Your task to perform on an android device: delete the emails in spam in the gmail app Image 0: 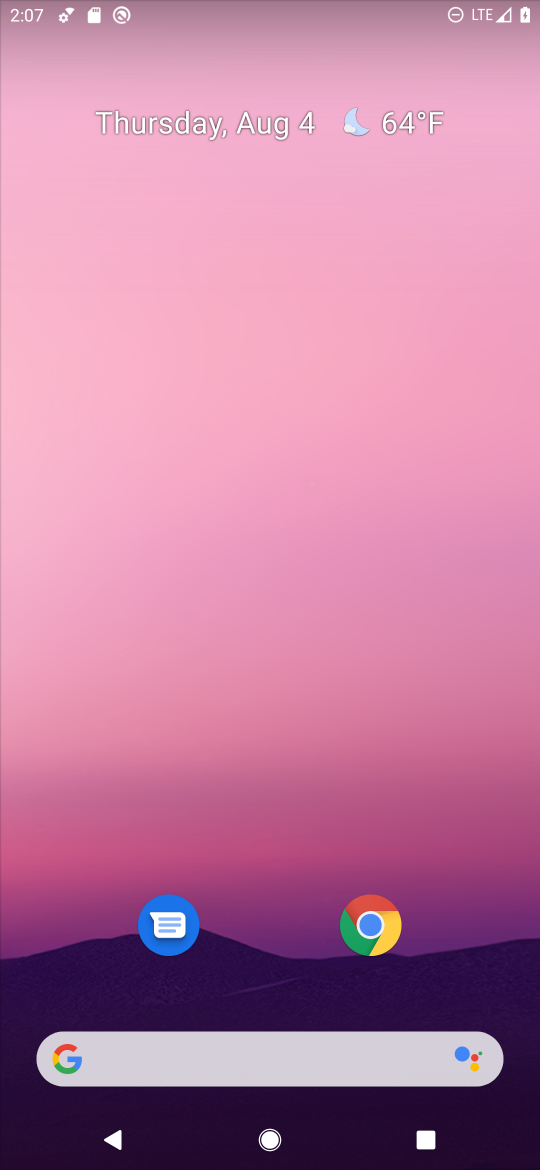
Step 0: drag from (231, 957) to (254, 162)
Your task to perform on an android device: delete the emails in spam in the gmail app Image 1: 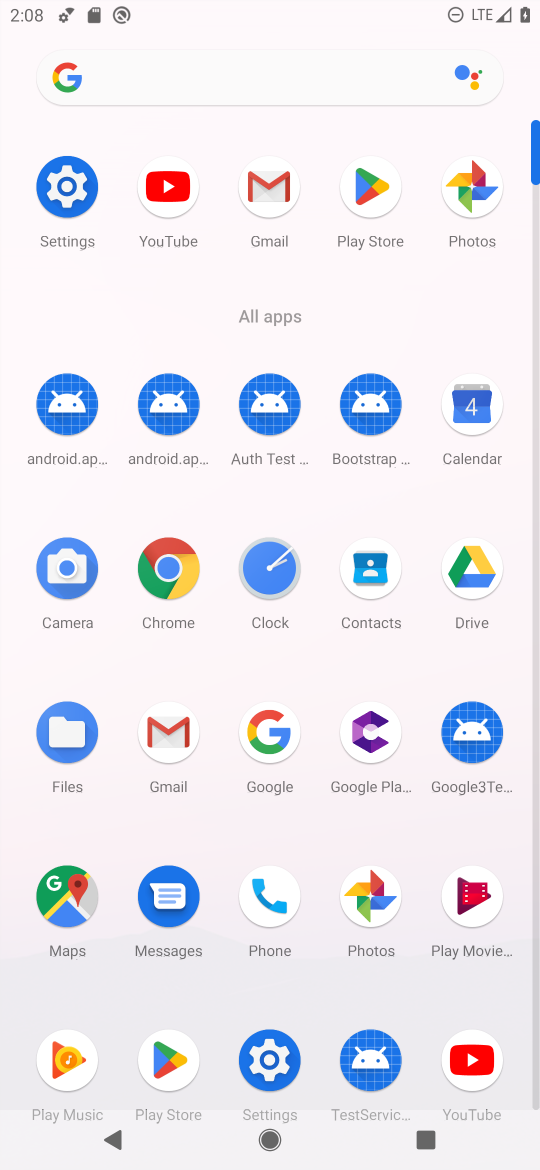
Step 1: click (166, 733)
Your task to perform on an android device: delete the emails in spam in the gmail app Image 2: 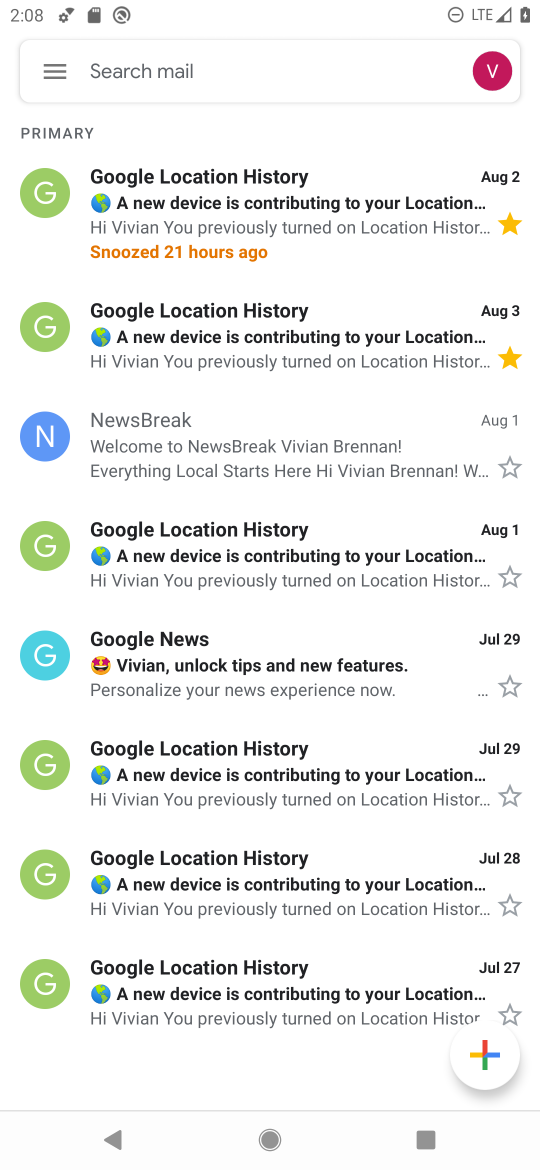
Step 2: click (59, 81)
Your task to perform on an android device: delete the emails in spam in the gmail app Image 3: 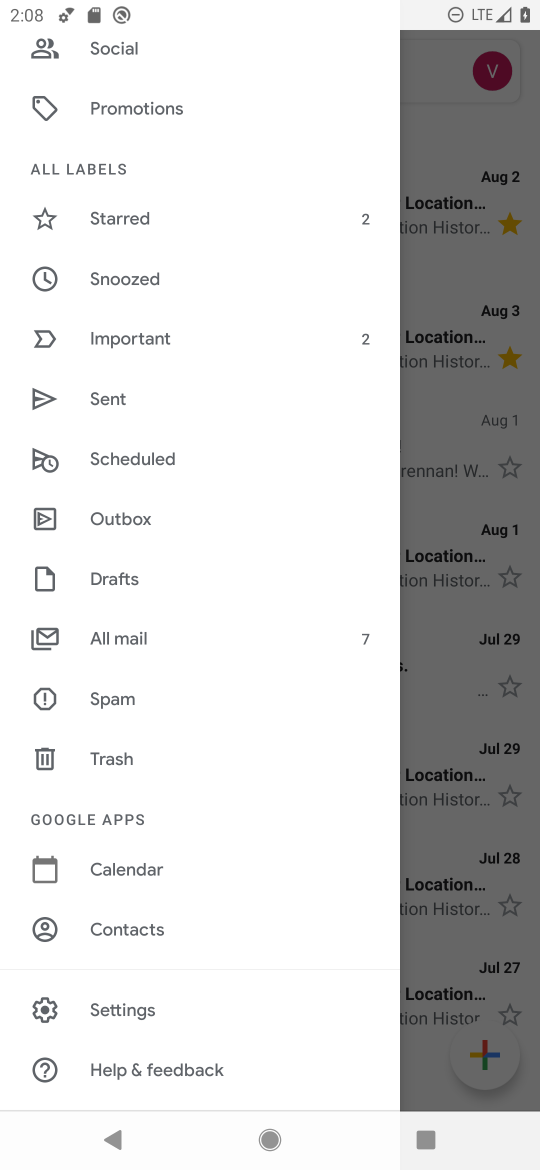
Step 3: click (121, 714)
Your task to perform on an android device: delete the emails in spam in the gmail app Image 4: 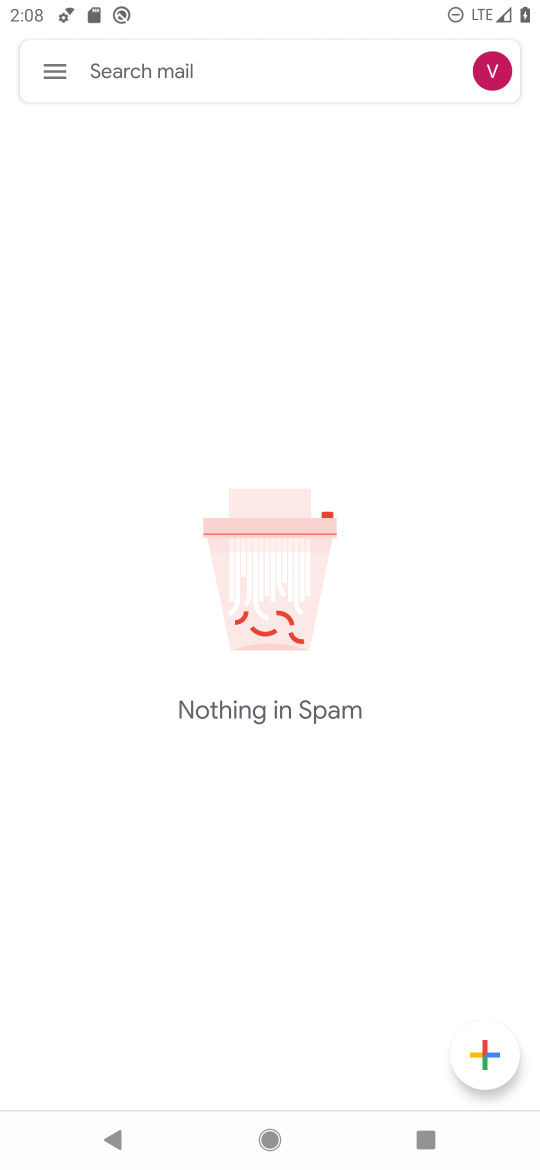
Step 4: click (114, 1145)
Your task to perform on an android device: delete the emails in spam in the gmail app Image 5: 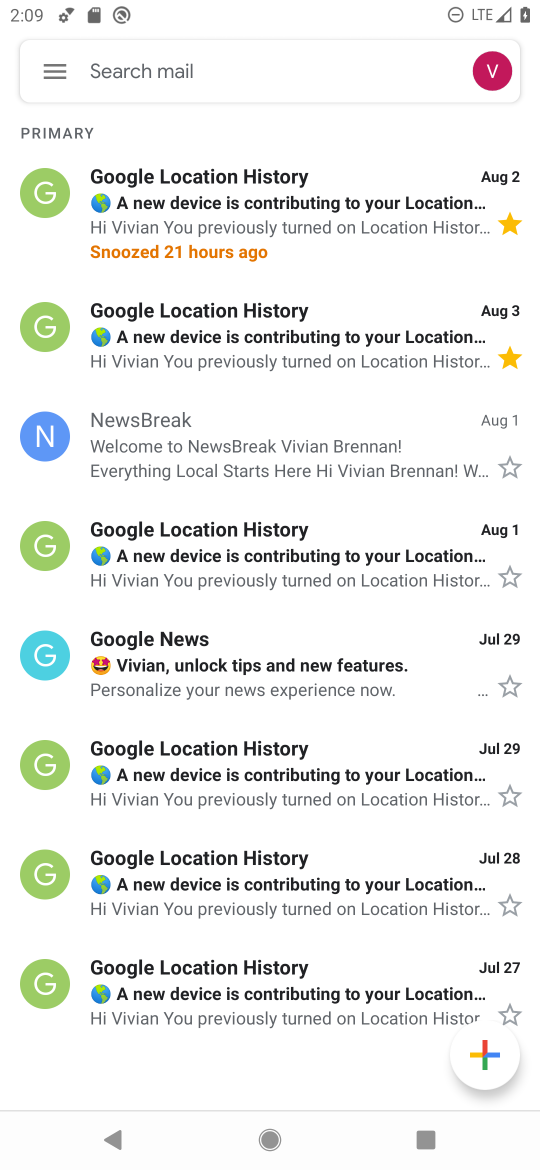
Step 5: click (40, 75)
Your task to perform on an android device: delete the emails in spam in the gmail app Image 6: 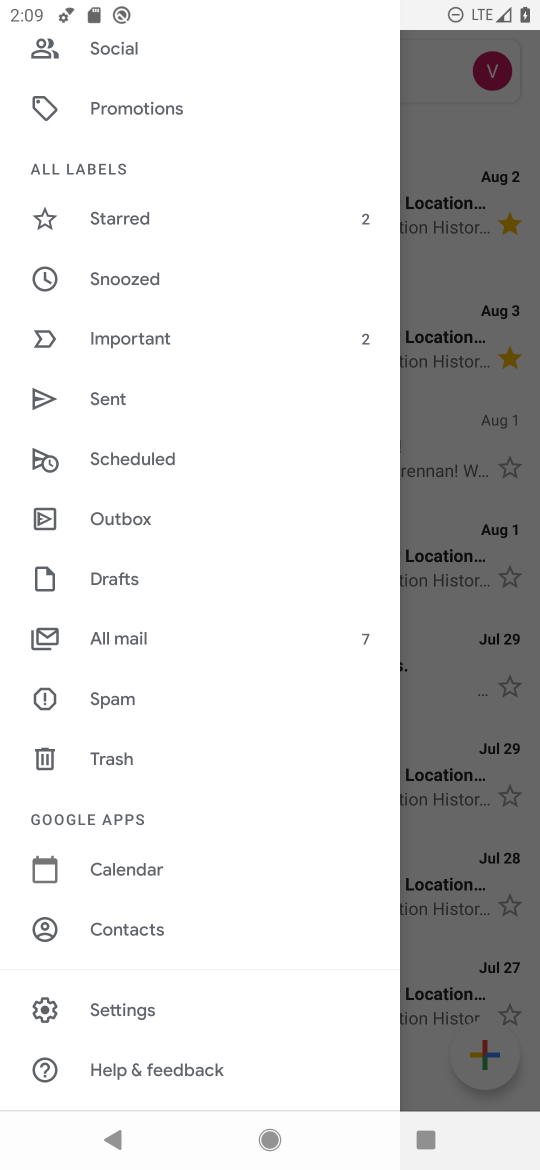
Step 6: click (111, 696)
Your task to perform on an android device: delete the emails in spam in the gmail app Image 7: 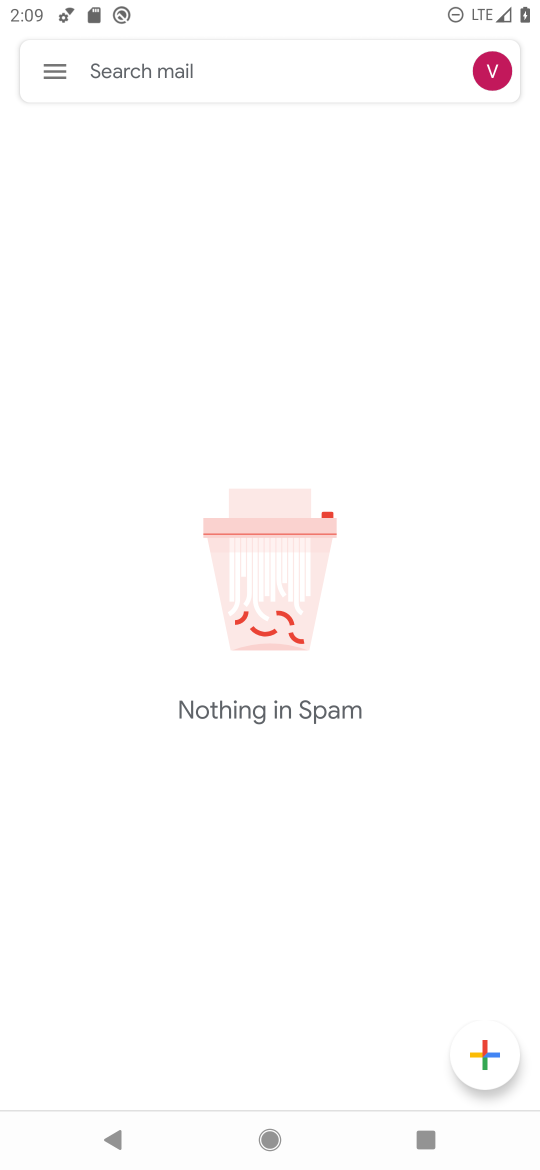
Step 7: task complete